Your task to perform on an android device: Open settings on Google Maps Image 0: 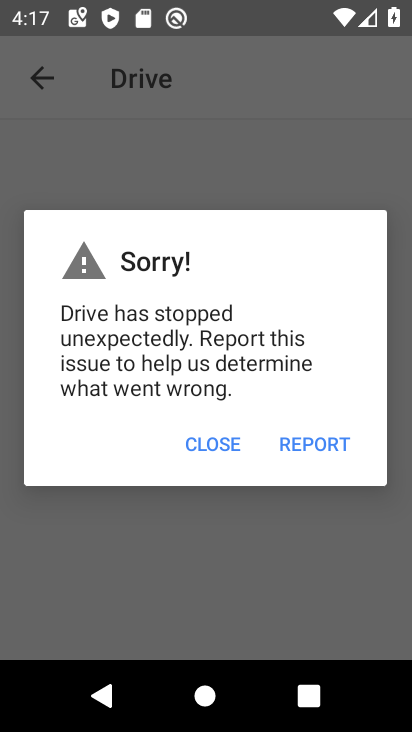
Step 0: press home button
Your task to perform on an android device: Open settings on Google Maps Image 1: 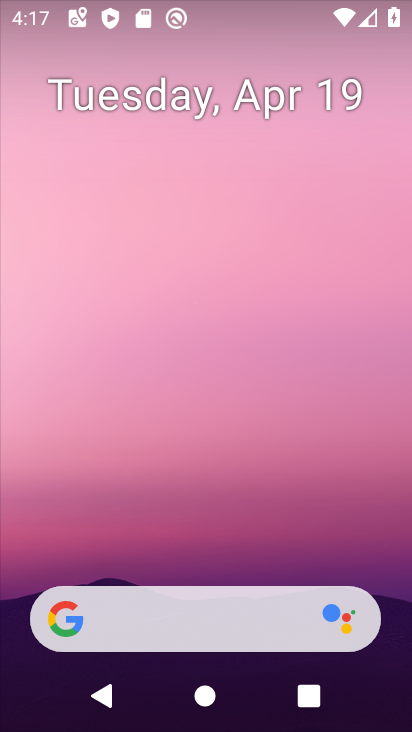
Step 1: drag from (203, 538) to (228, 166)
Your task to perform on an android device: Open settings on Google Maps Image 2: 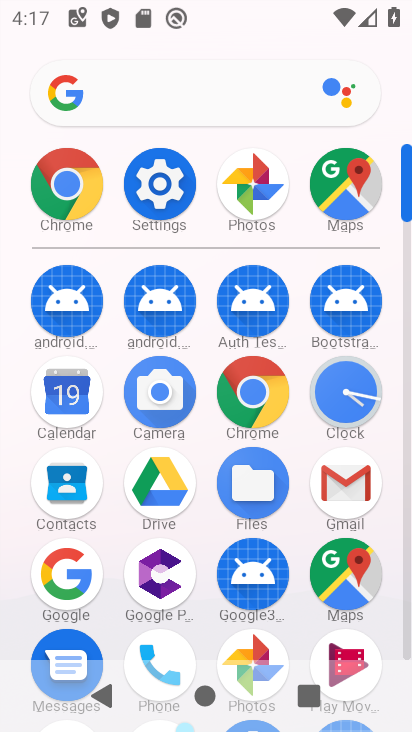
Step 2: click (345, 191)
Your task to perform on an android device: Open settings on Google Maps Image 3: 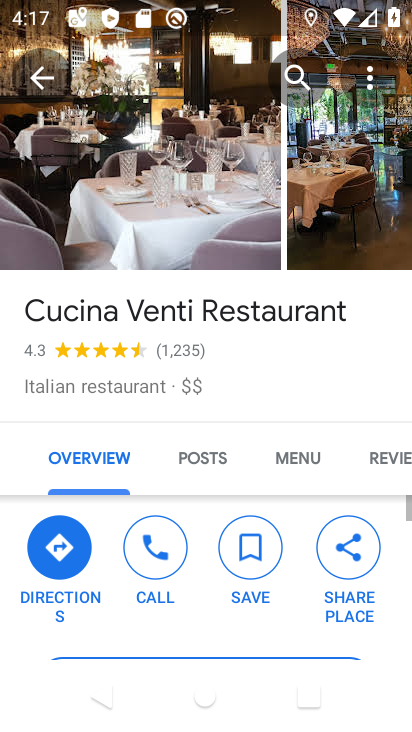
Step 3: press back button
Your task to perform on an android device: Open settings on Google Maps Image 4: 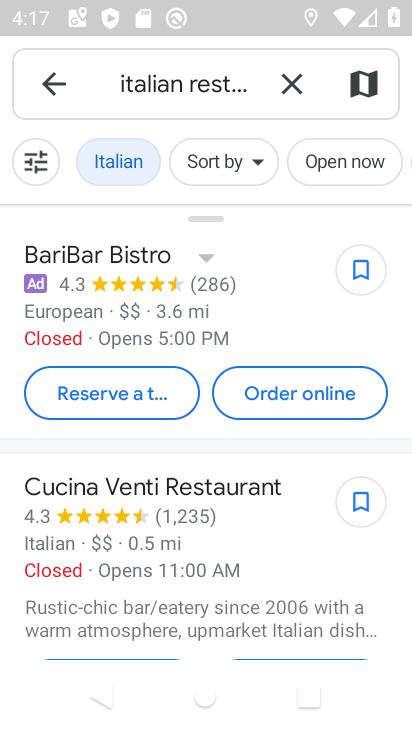
Step 4: click (291, 75)
Your task to perform on an android device: Open settings on Google Maps Image 5: 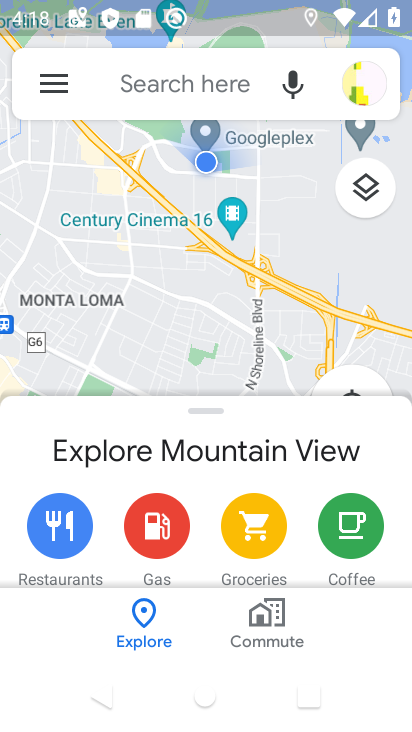
Step 5: click (59, 85)
Your task to perform on an android device: Open settings on Google Maps Image 6: 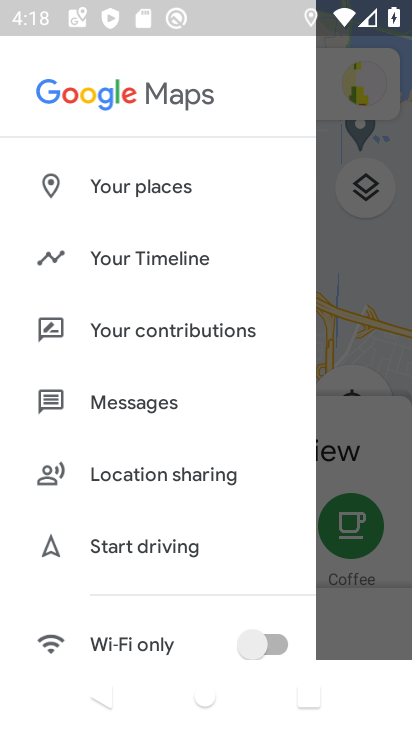
Step 6: drag from (113, 504) to (130, 346)
Your task to perform on an android device: Open settings on Google Maps Image 7: 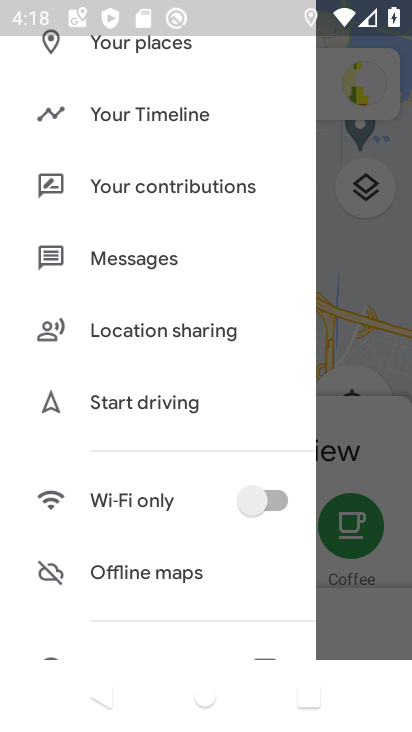
Step 7: drag from (138, 426) to (151, 328)
Your task to perform on an android device: Open settings on Google Maps Image 8: 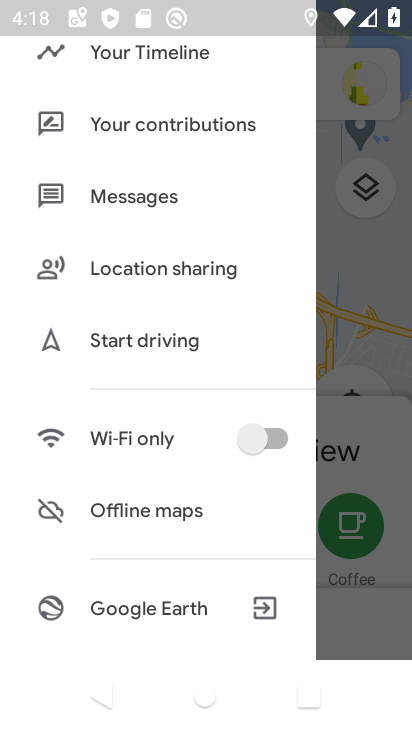
Step 8: drag from (117, 469) to (141, 364)
Your task to perform on an android device: Open settings on Google Maps Image 9: 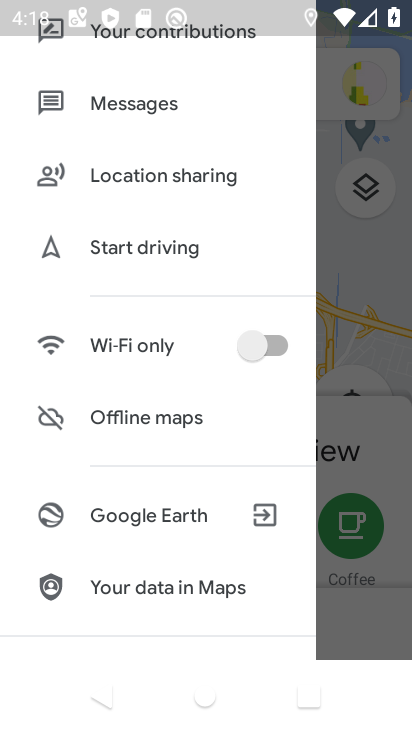
Step 9: drag from (107, 526) to (137, 441)
Your task to perform on an android device: Open settings on Google Maps Image 10: 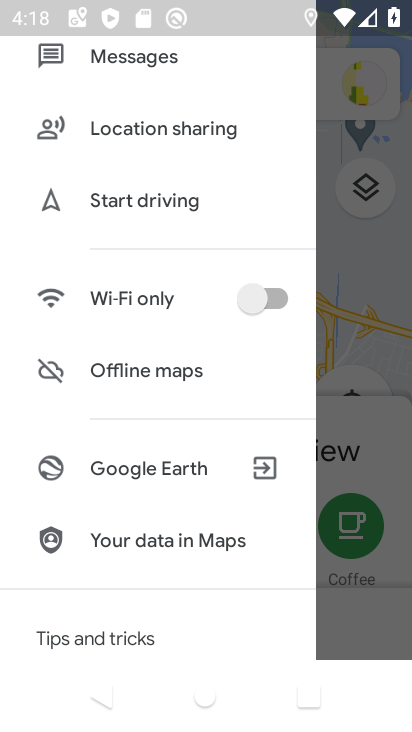
Step 10: drag from (103, 555) to (144, 448)
Your task to perform on an android device: Open settings on Google Maps Image 11: 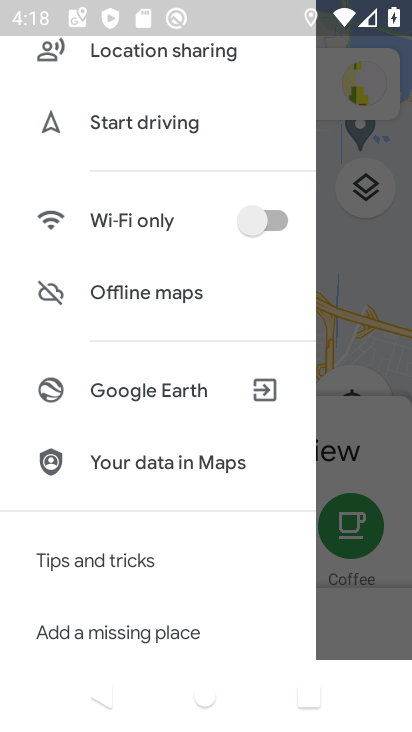
Step 11: drag from (92, 530) to (112, 444)
Your task to perform on an android device: Open settings on Google Maps Image 12: 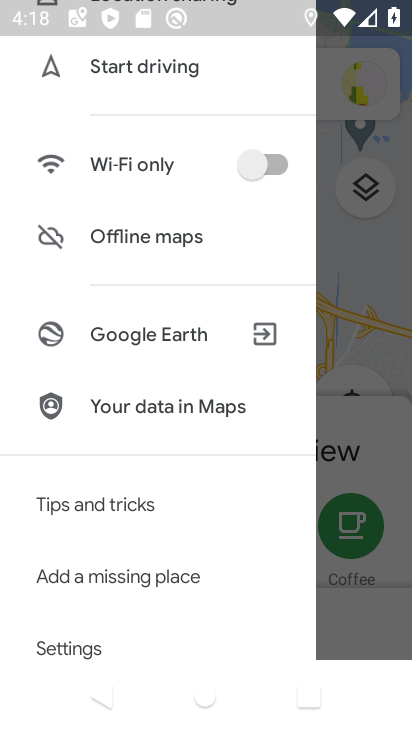
Step 12: drag from (78, 589) to (123, 450)
Your task to perform on an android device: Open settings on Google Maps Image 13: 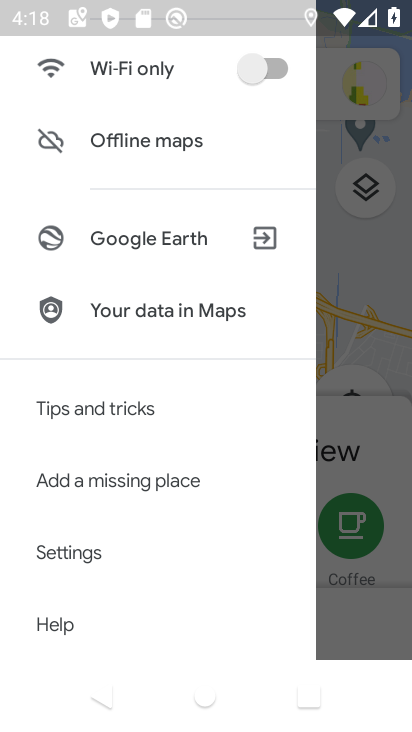
Step 13: click (51, 550)
Your task to perform on an android device: Open settings on Google Maps Image 14: 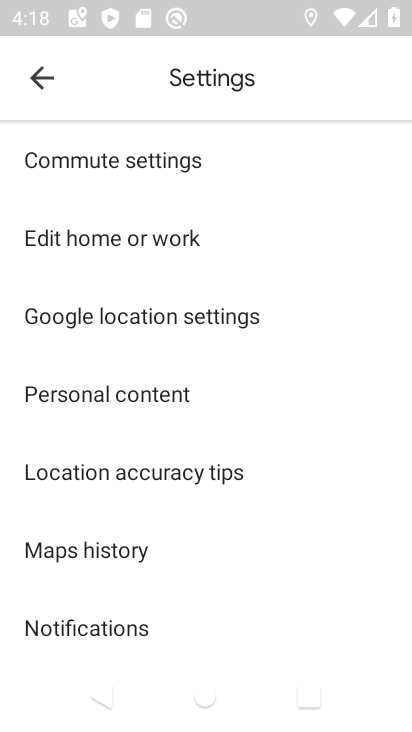
Step 14: task complete